Your task to perform on an android device: clear all cookies in the chrome app Image 0: 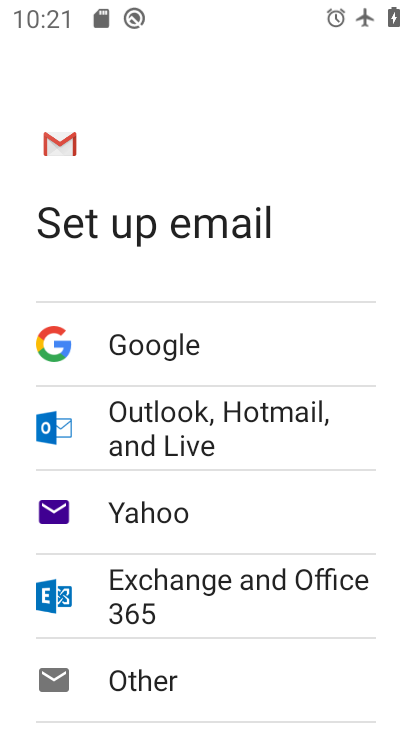
Step 0: press home button
Your task to perform on an android device: clear all cookies in the chrome app Image 1: 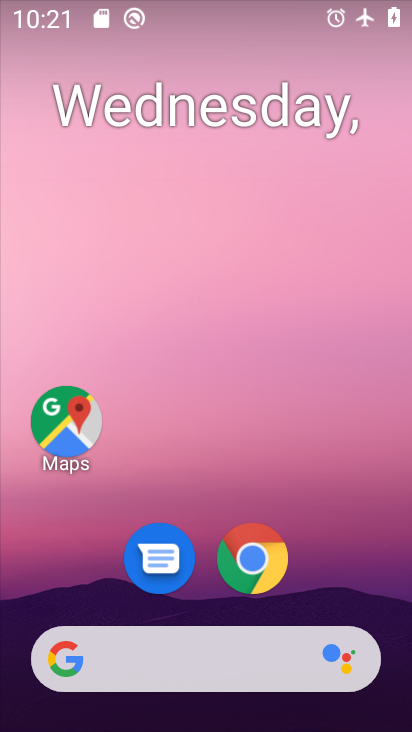
Step 1: drag from (345, 584) to (339, 130)
Your task to perform on an android device: clear all cookies in the chrome app Image 2: 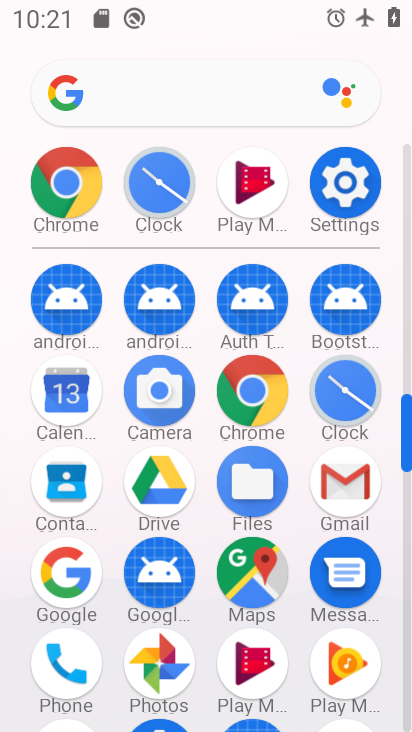
Step 2: click (258, 395)
Your task to perform on an android device: clear all cookies in the chrome app Image 3: 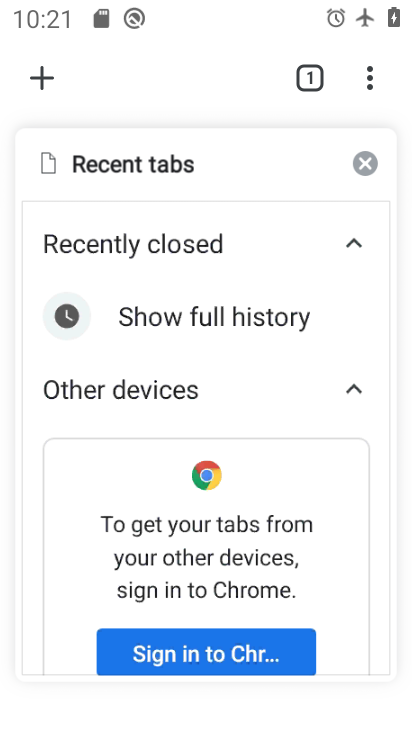
Step 3: press back button
Your task to perform on an android device: clear all cookies in the chrome app Image 4: 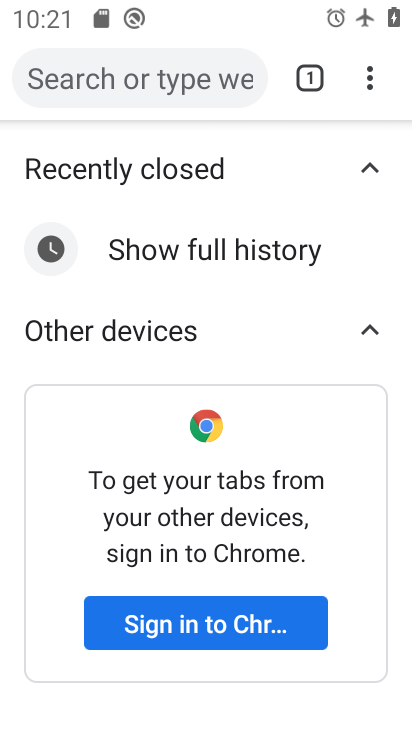
Step 4: click (373, 82)
Your task to perform on an android device: clear all cookies in the chrome app Image 5: 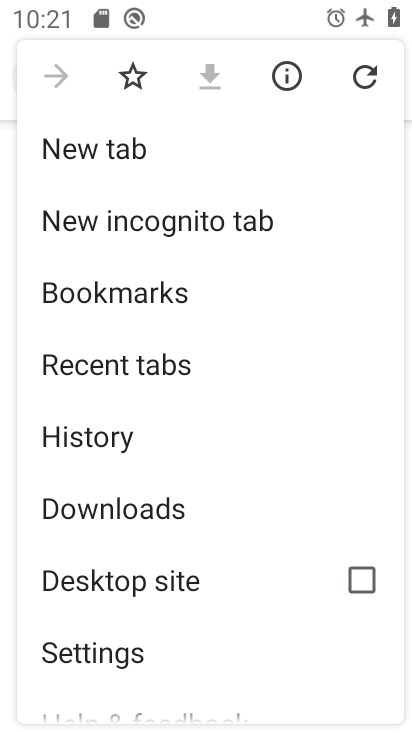
Step 5: drag from (300, 489) to (304, 369)
Your task to perform on an android device: clear all cookies in the chrome app Image 6: 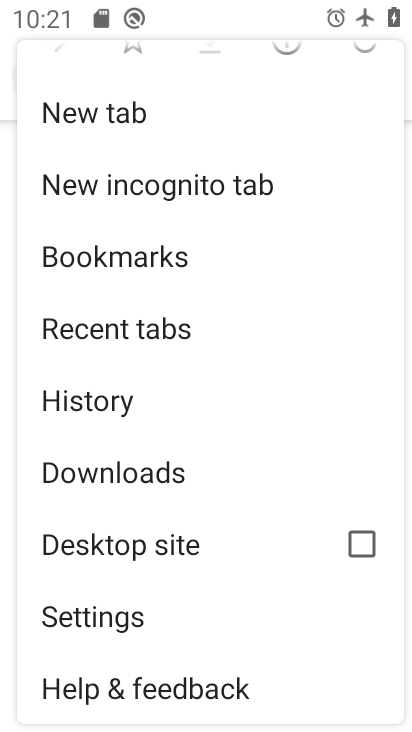
Step 6: click (185, 615)
Your task to perform on an android device: clear all cookies in the chrome app Image 7: 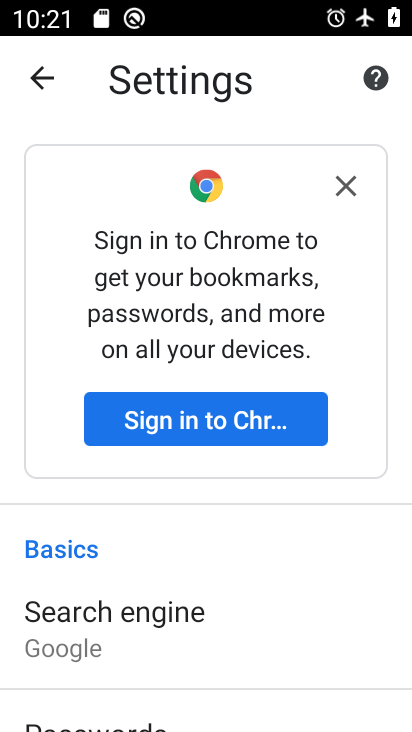
Step 7: drag from (320, 576) to (328, 440)
Your task to perform on an android device: clear all cookies in the chrome app Image 8: 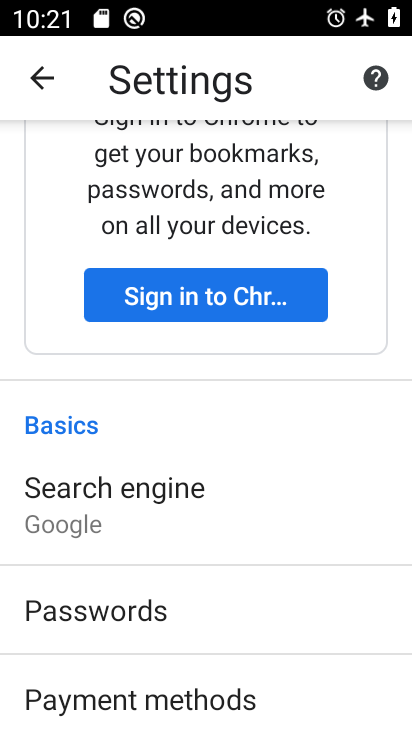
Step 8: drag from (324, 543) to (336, 420)
Your task to perform on an android device: clear all cookies in the chrome app Image 9: 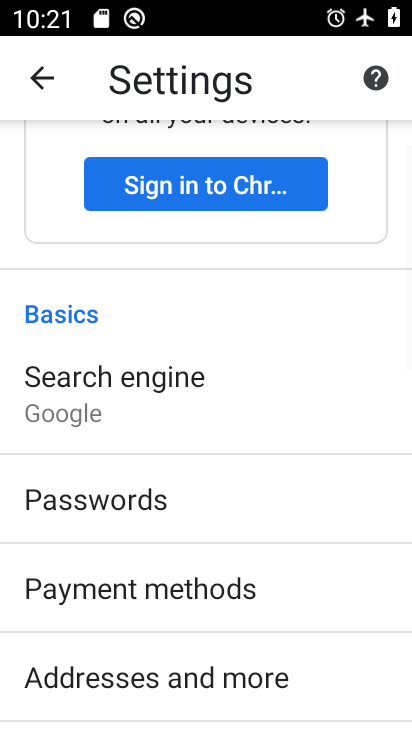
Step 9: drag from (325, 547) to (323, 405)
Your task to perform on an android device: clear all cookies in the chrome app Image 10: 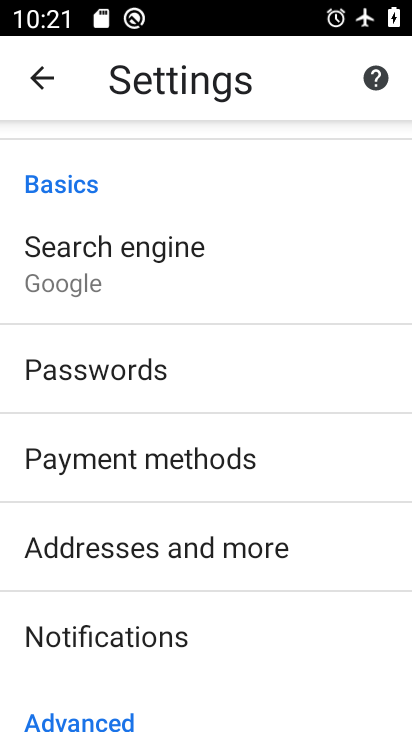
Step 10: drag from (338, 536) to (333, 428)
Your task to perform on an android device: clear all cookies in the chrome app Image 11: 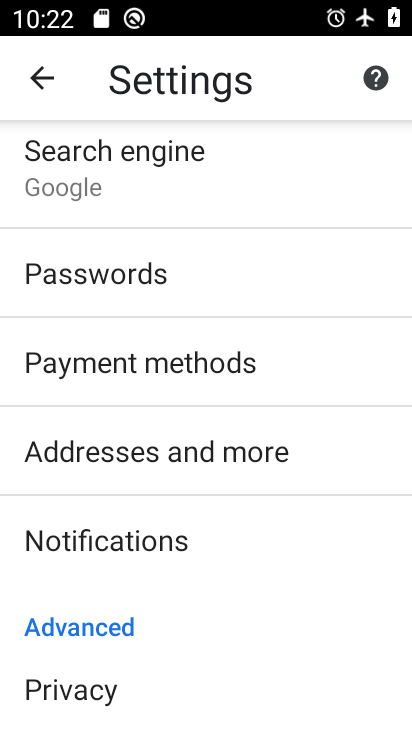
Step 11: drag from (312, 551) to (315, 436)
Your task to perform on an android device: clear all cookies in the chrome app Image 12: 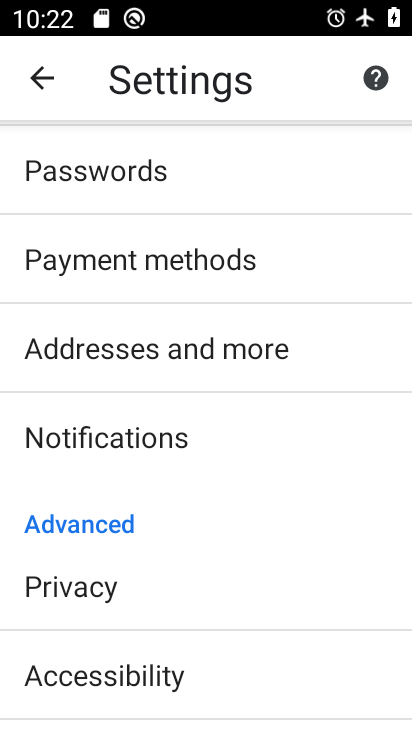
Step 12: drag from (310, 548) to (312, 353)
Your task to perform on an android device: clear all cookies in the chrome app Image 13: 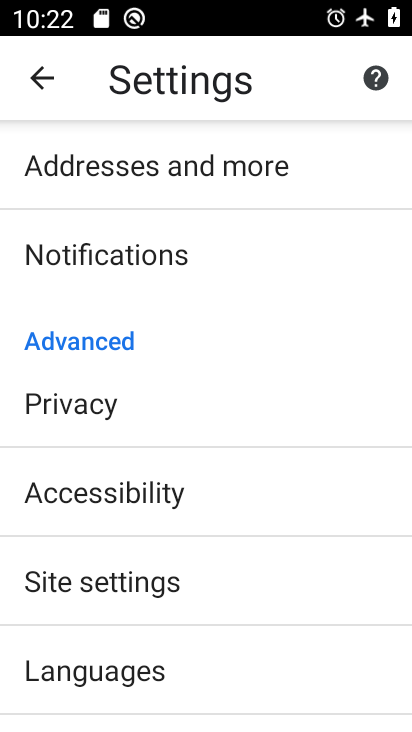
Step 13: drag from (288, 616) to (300, 292)
Your task to perform on an android device: clear all cookies in the chrome app Image 14: 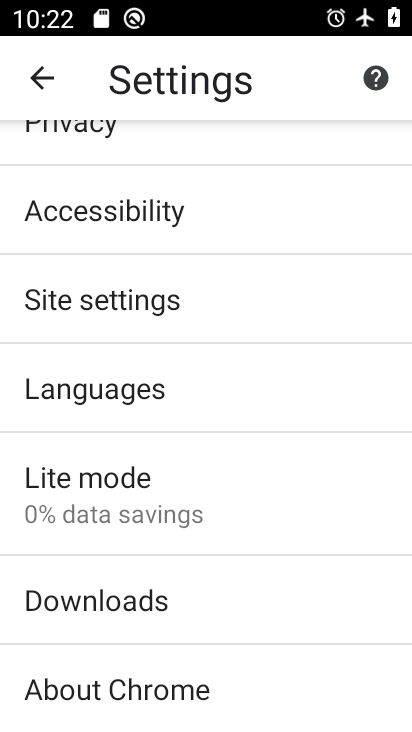
Step 14: drag from (267, 267) to (280, 413)
Your task to perform on an android device: clear all cookies in the chrome app Image 15: 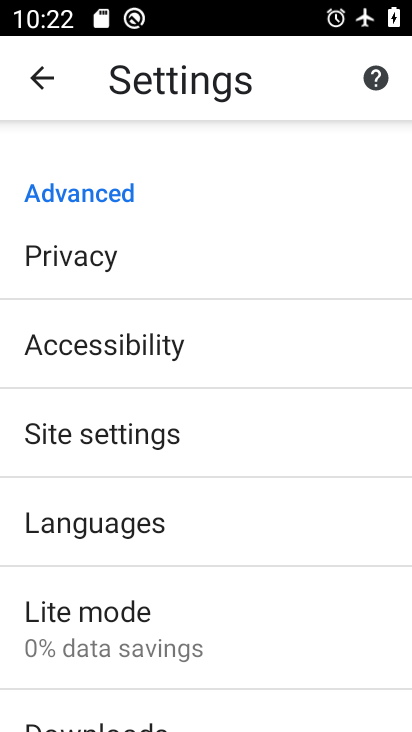
Step 15: click (245, 262)
Your task to perform on an android device: clear all cookies in the chrome app Image 16: 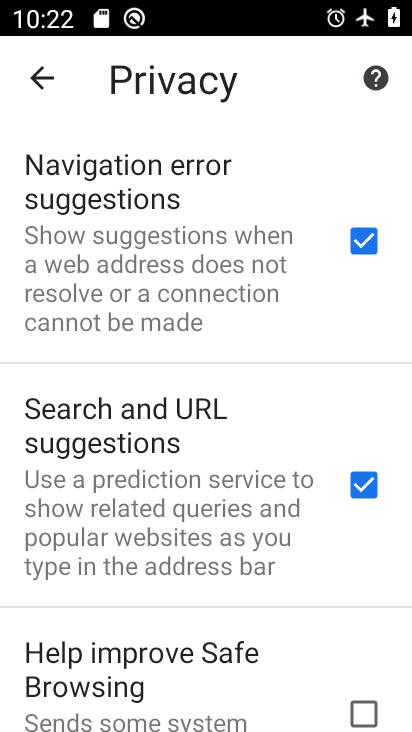
Step 16: drag from (285, 486) to (266, 221)
Your task to perform on an android device: clear all cookies in the chrome app Image 17: 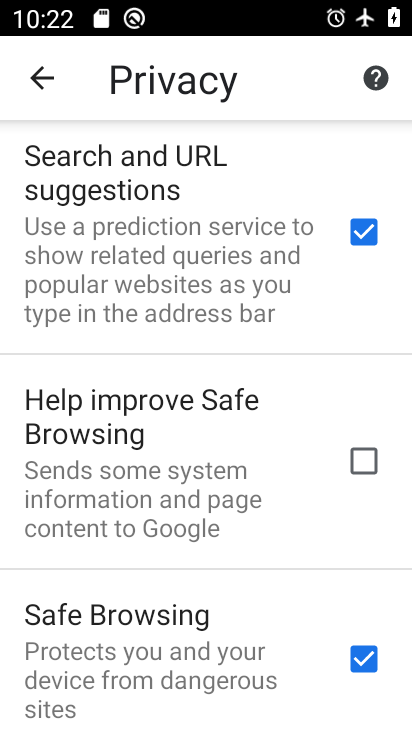
Step 17: drag from (280, 539) to (292, 307)
Your task to perform on an android device: clear all cookies in the chrome app Image 18: 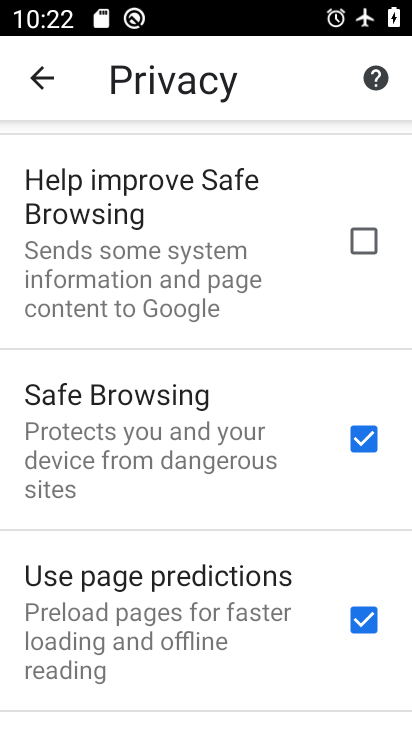
Step 18: drag from (294, 527) to (275, 313)
Your task to perform on an android device: clear all cookies in the chrome app Image 19: 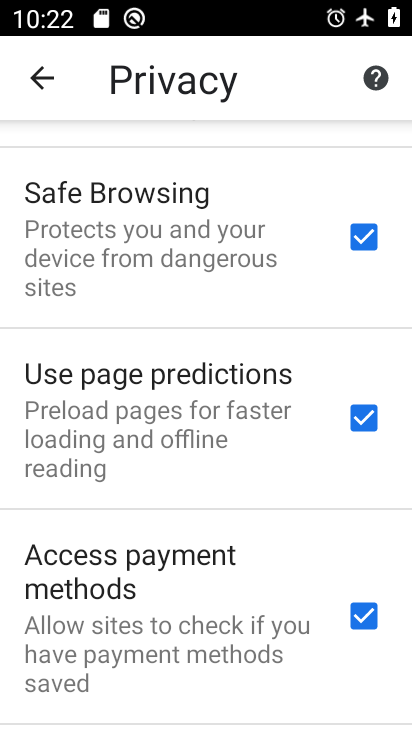
Step 19: drag from (282, 545) to (283, 374)
Your task to perform on an android device: clear all cookies in the chrome app Image 20: 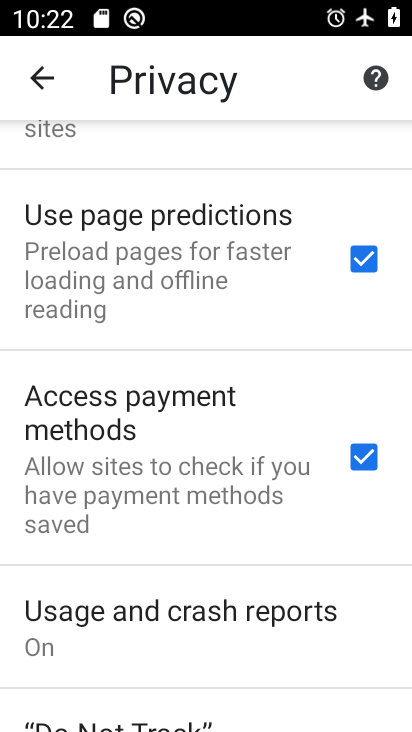
Step 20: drag from (286, 544) to (302, 357)
Your task to perform on an android device: clear all cookies in the chrome app Image 21: 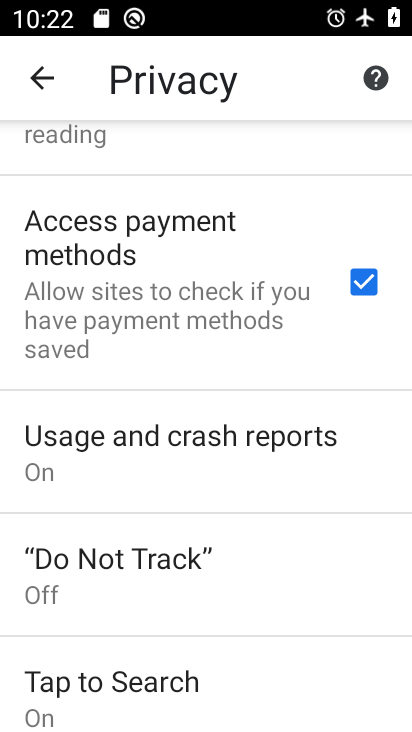
Step 21: drag from (310, 549) to (314, 334)
Your task to perform on an android device: clear all cookies in the chrome app Image 22: 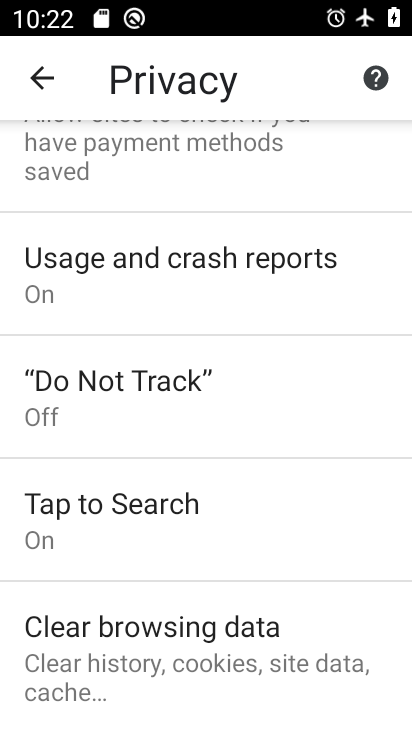
Step 22: drag from (303, 541) to (304, 313)
Your task to perform on an android device: clear all cookies in the chrome app Image 23: 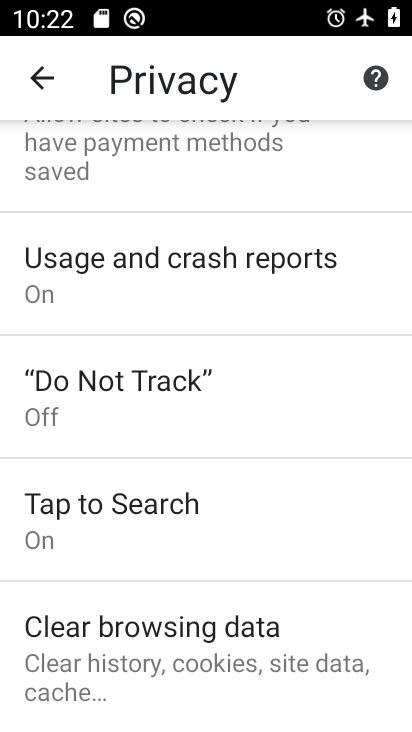
Step 23: drag from (309, 566) to (304, 383)
Your task to perform on an android device: clear all cookies in the chrome app Image 24: 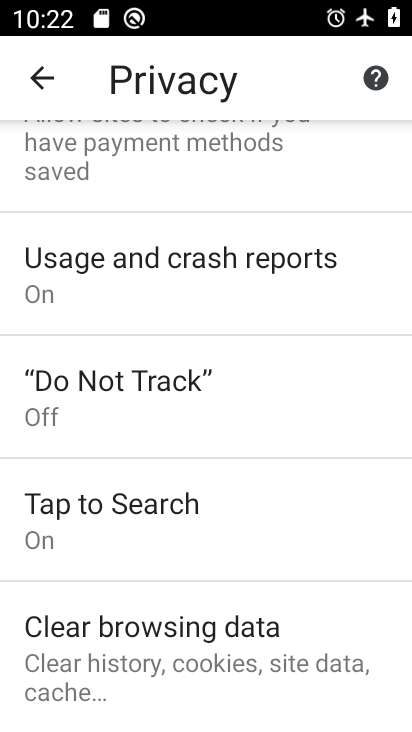
Step 24: click (236, 663)
Your task to perform on an android device: clear all cookies in the chrome app Image 25: 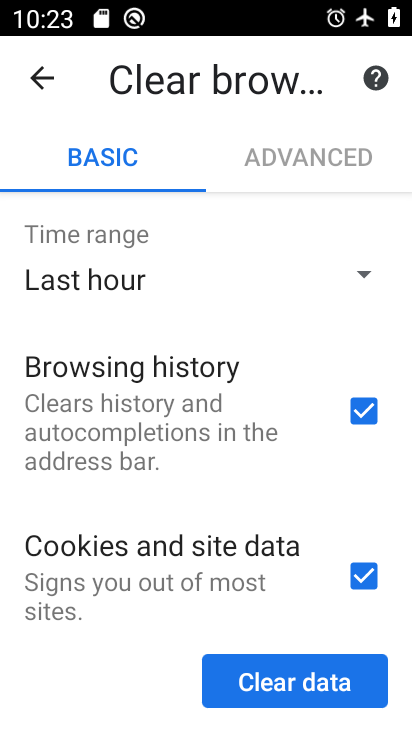
Step 25: click (299, 693)
Your task to perform on an android device: clear all cookies in the chrome app Image 26: 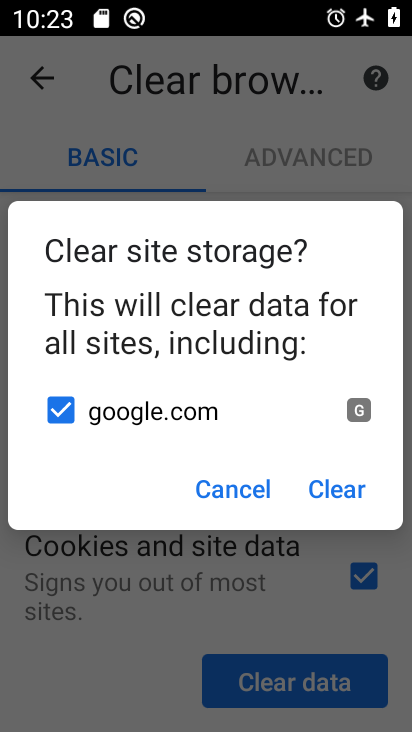
Step 26: click (355, 490)
Your task to perform on an android device: clear all cookies in the chrome app Image 27: 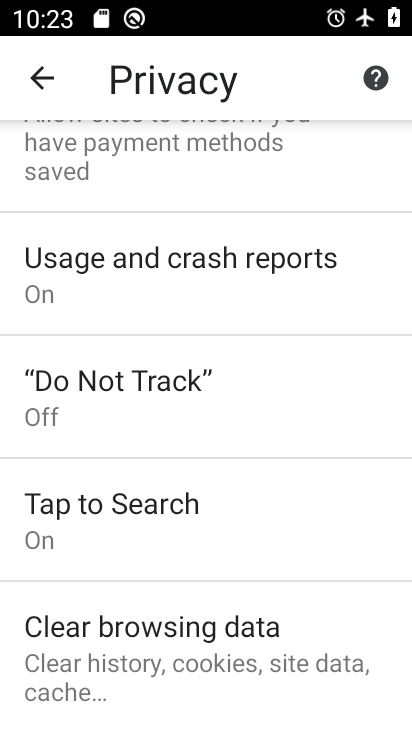
Step 27: task complete